Your task to perform on an android device: Show the shopping cart on newegg.com. Search for "asus rog" on newegg.com, select the first entry, and add it to the cart. Image 0: 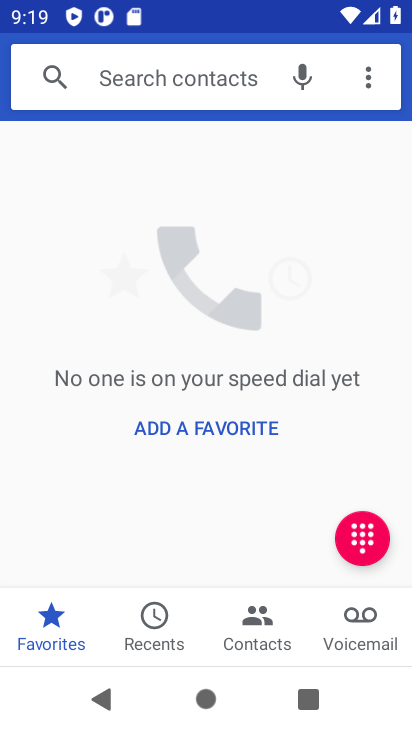
Step 0: click (130, 602)
Your task to perform on an android device: Show the shopping cart on newegg.com. Search for "asus rog" on newegg.com, select the first entry, and add it to the cart. Image 1: 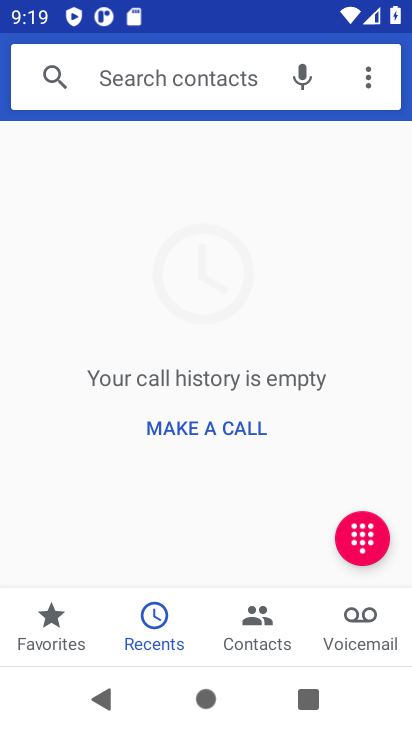
Step 1: press home button
Your task to perform on an android device: Show the shopping cart on newegg.com. Search for "asus rog" on newegg.com, select the first entry, and add it to the cart. Image 2: 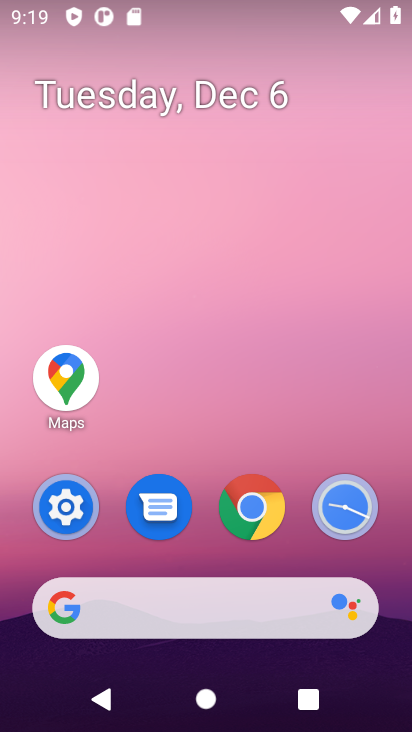
Step 2: click (168, 609)
Your task to perform on an android device: Show the shopping cart on newegg.com. Search for "asus rog" on newegg.com, select the first entry, and add it to the cart. Image 3: 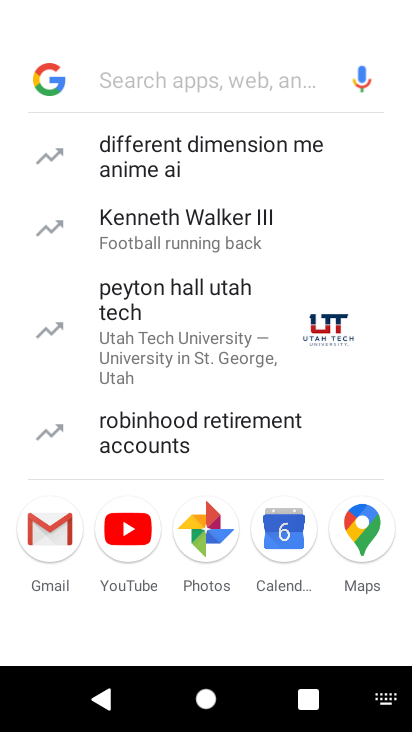
Step 3: type "newegg.com"
Your task to perform on an android device: Show the shopping cart on newegg.com. Search for "asus rog" on newegg.com, select the first entry, and add it to the cart. Image 4: 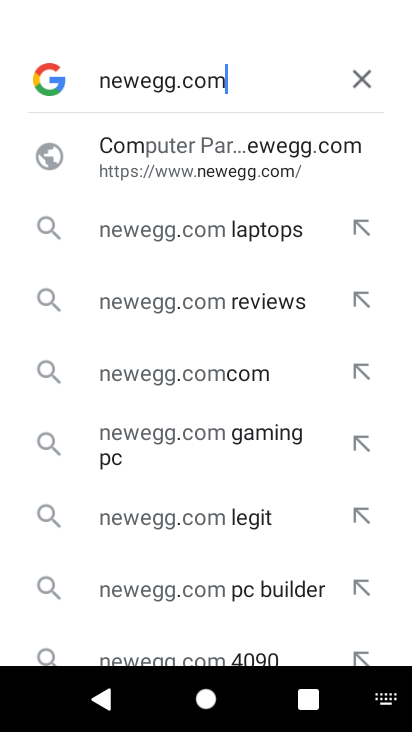
Step 4: press enter
Your task to perform on an android device: Show the shopping cart on newegg.com. Search for "asus rog" on newegg.com, select the first entry, and add it to the cart. Image 5: 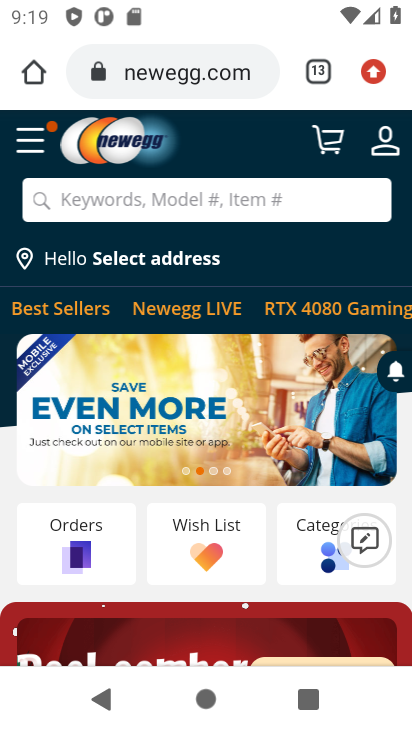
Step 5: click (326, 136)
Your task to perform on an android device: Show the shopping cart on newegg.com. Search for "asus rog" on newegg.com, select the first entry, and add it to the cart. Image 6: 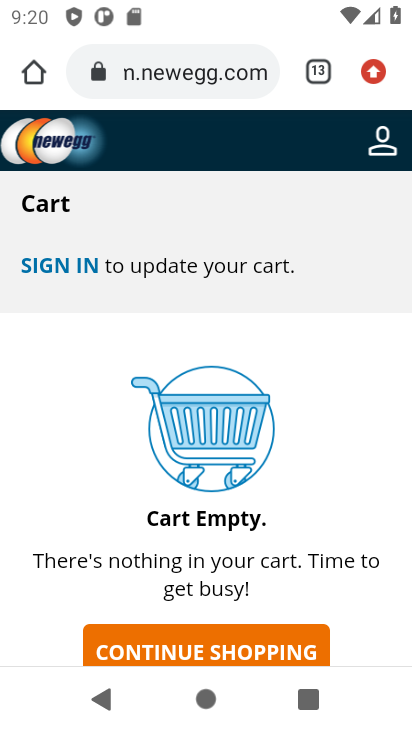
Step 6: press back button
Your task to perform on an android device: Show the shopping cart on newegg.com. Search for "asus rog" on newegg.com, select the first entry, and add it to the cart. Image 7: 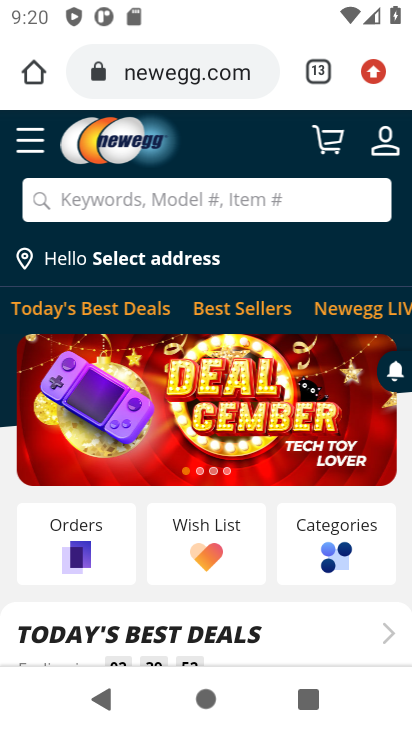
Step 7: click (171, 199)
Your task to perform on an android device: Show the shopping cart on newegg.com. Search for "asus rog" on newegg.com, select the first entry, and add it to the cart. Image 8: 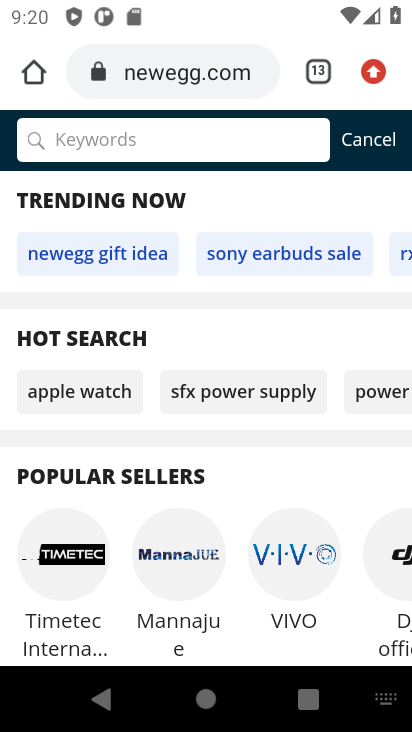
Step 8: type "asus rog"
Your task to perform on an android device: Show the shopping cart on newegg.com. Search for "asus rog" on newegg.com, select the first entry, and add it to the cart. Image 9: 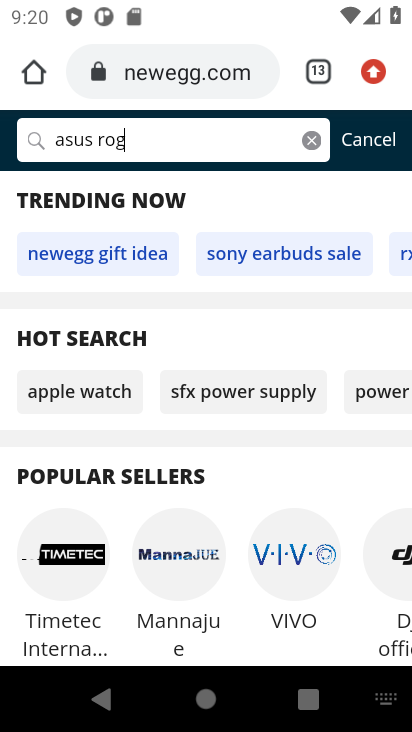
Step 9: press enter
Your task to perform on an android device: Show the shopping cart on newegg.com. Search for "asus rog" on newegg.com, select the first entry, and add it to the cart. Image 10: 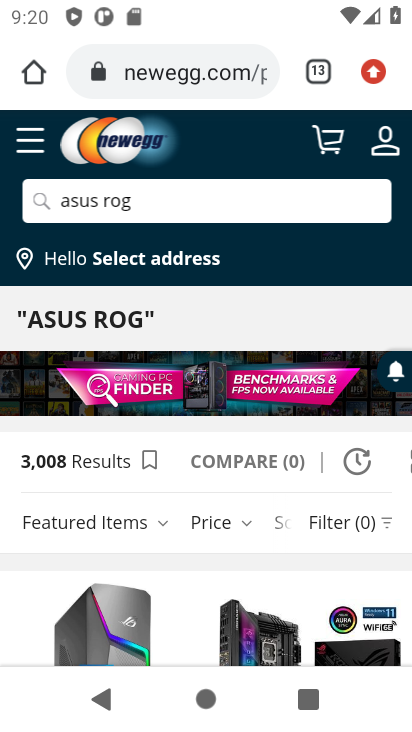
Step 10: drag from (263, 575) to (260, 334)
Your task to perform on an android device: Show the shopping cart on newegg.com. Search for "asus rog" on newegg.com, select the first entry, and add it to the cart. Image 11: 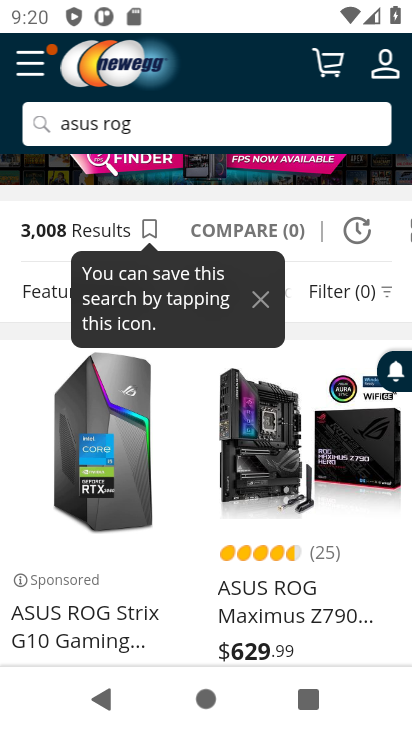
Step 11: drag from (209, 599) to (228, 340)
Your task to perform on an android device: Show the shopping cart on newegg.com. Search for "asus rog" on newegg.com, select the first entry, and add it to the cart. Image 12: 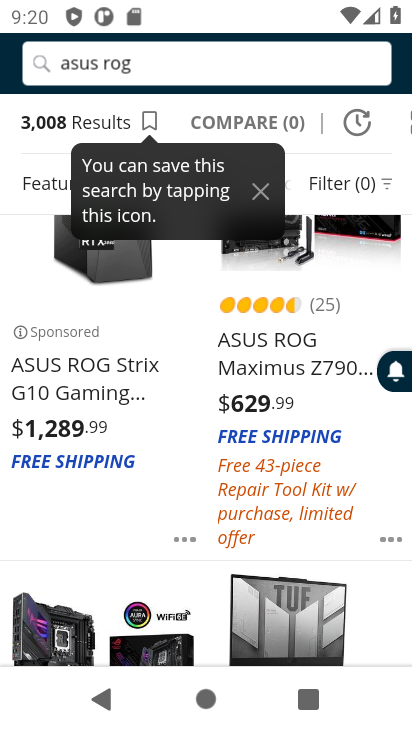
Step 12: click (80, 361)
Your task to perform on an android device: Show the shopping cart on newegg.com. Search for "asus rog" on newegg.com, select the first entry, and add it to the cart. Image 13: 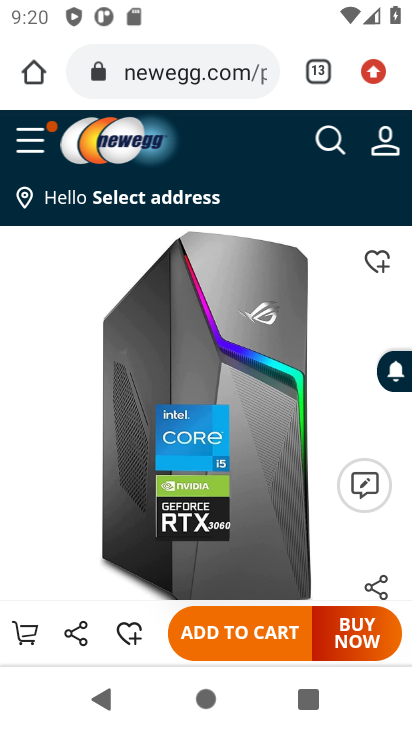
Step 13: click (234, 644)
Your task to perform on an android device: Show the shopping cart on newegg.com. Search for "asus rog" on newegg.com, select the first entry, and add it to the cart. Image 14: 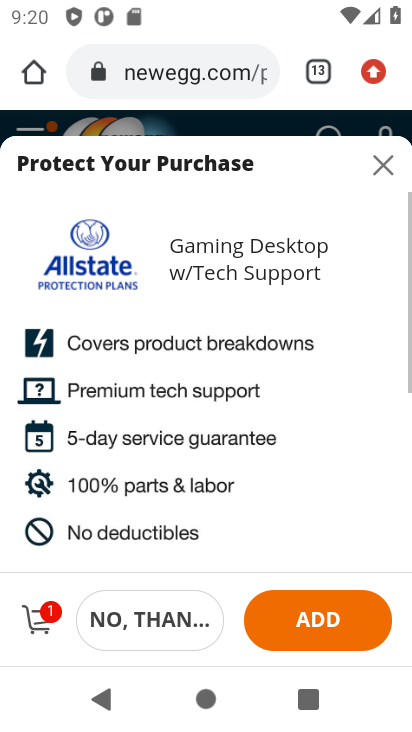
Step 14: task complete